Your task to perform on an android device: toggle wifi Image 0: 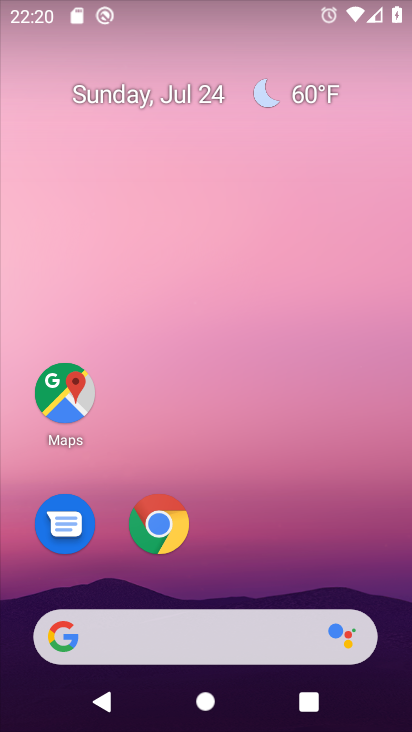
Step 0: drag from (246, 538) to (237, 166)
Your task to perform on an android device: toggle wifi Image 1: 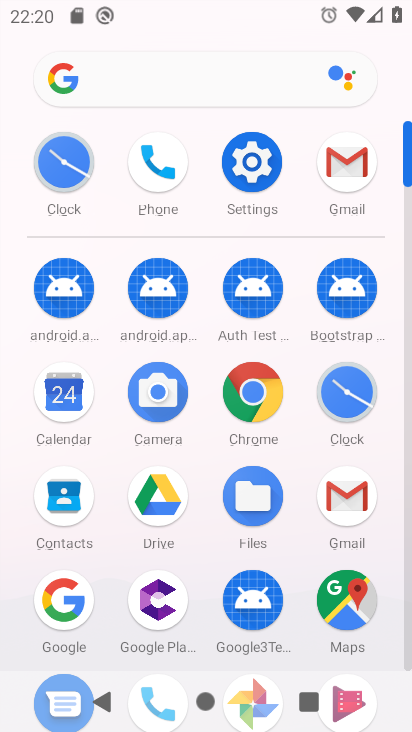
Step 1: click (247, 169)
Your task to perform on an android device: toggle wifi Image 2: 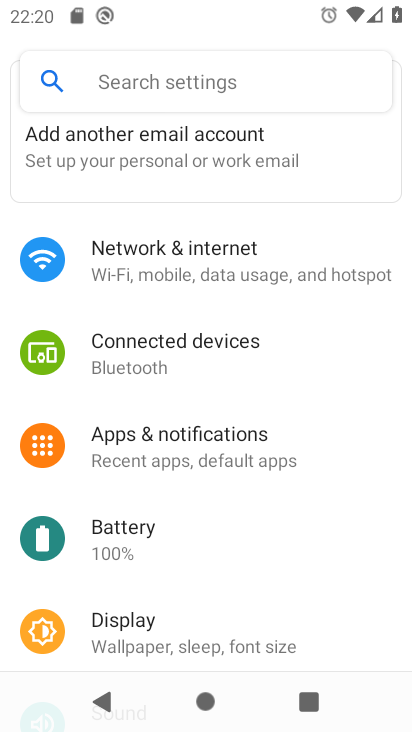
Step 2: click (261, 247)
Your task to perform on an android device: toggle wifi Image 3: 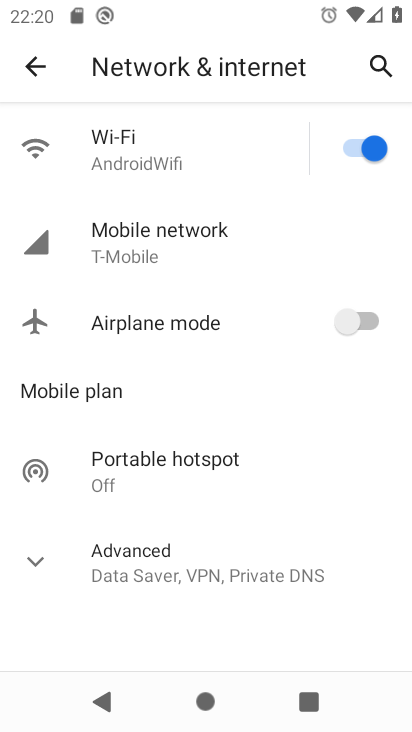
Step 3: click (363, 129)
Your task to perform on an android device: toggle wifi Image 4: 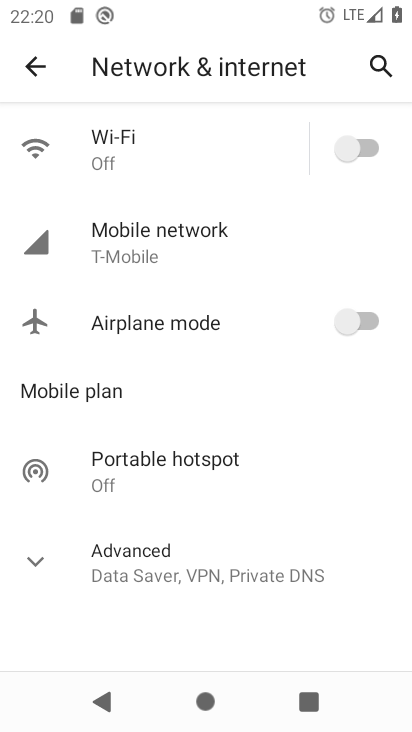
Step 4: task complete